Your task to perform on an android device: Search for a custom made wallet on Etsy Image 0: 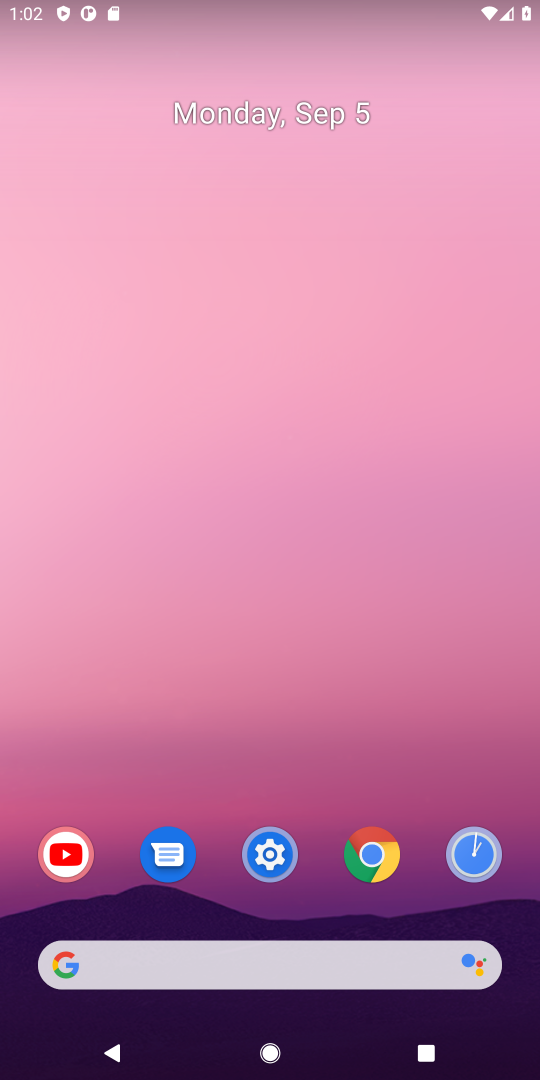
Step 0: click (293, 969)
Your task to perform on an android device: Search for a custom made wallet on Etsy Image 1: 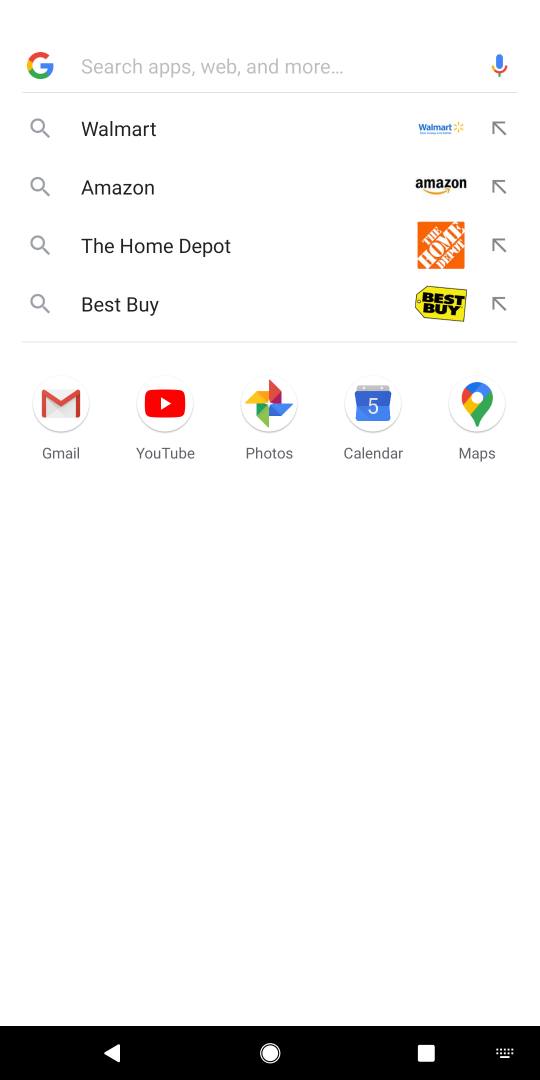
Step 1: type "Etsy"
Your task to perform on an android device: Search for a custom made wallet on Etsy Image 2: 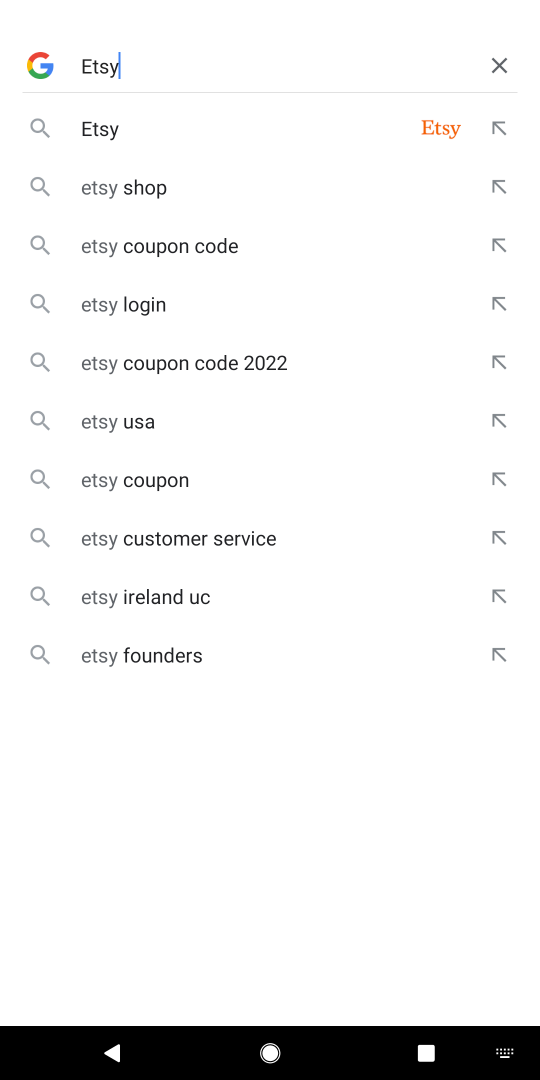
Step 2: click (92, 126)
Your task to perform on an android device: Search for a custom made wallet on Etsy Image 3: 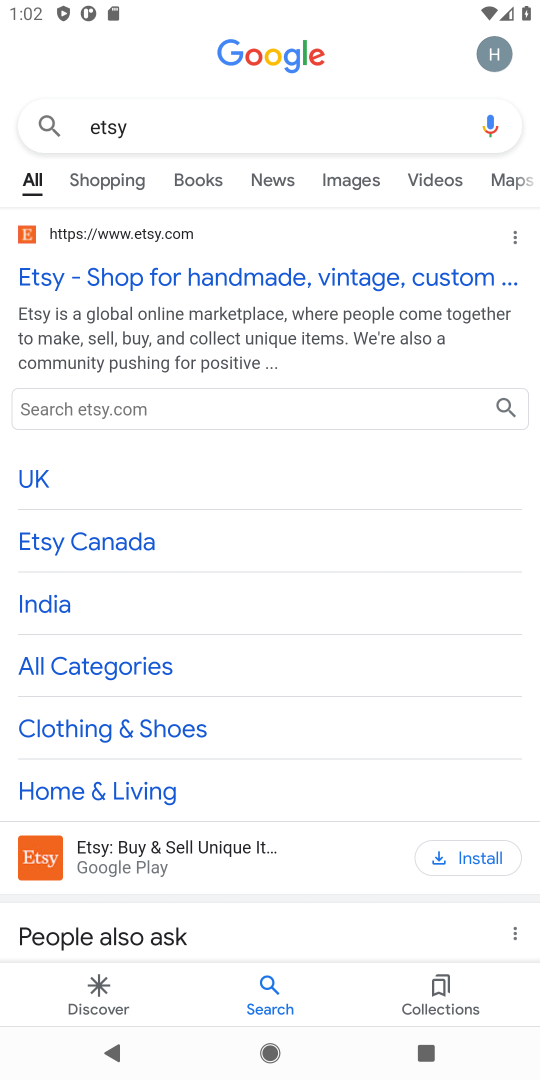
Step 3: click (104, 266)
Your task to perform on an android device: Search for a custom made wallet on Etsy Image 4: 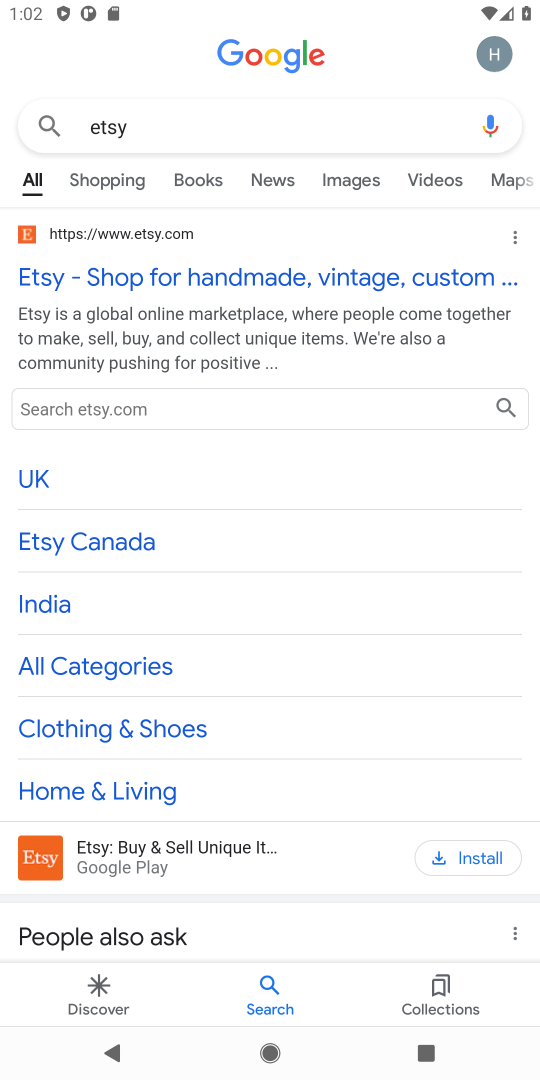
Step 4: click (122, 286)
Your task to perform on an android device: Search for a custom made wallet on Etsy Image 5: 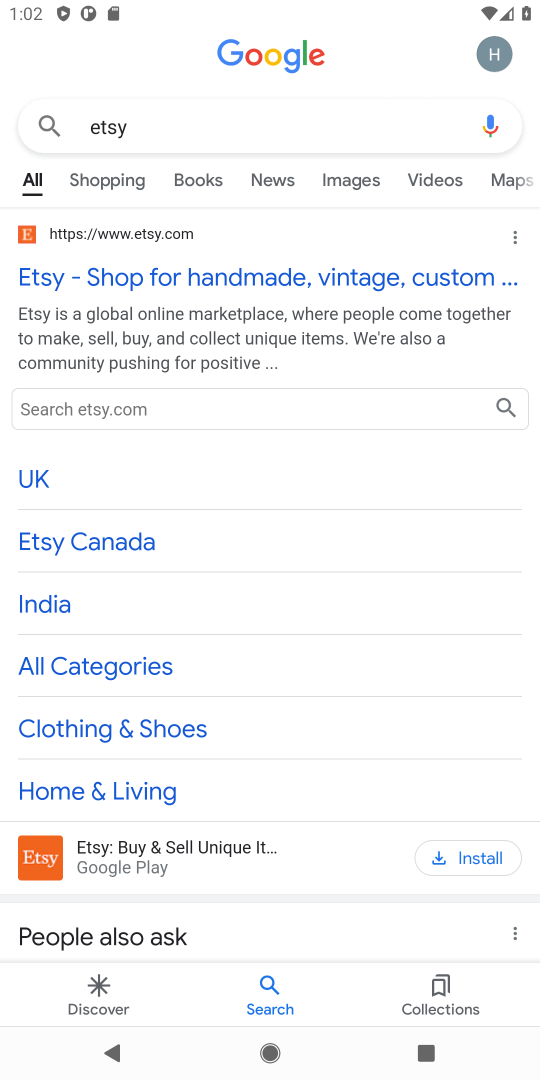
Step 5: click (223, 277)
Your task to perform on an android device: Search for a custom made wallet on Etsy Image 6: 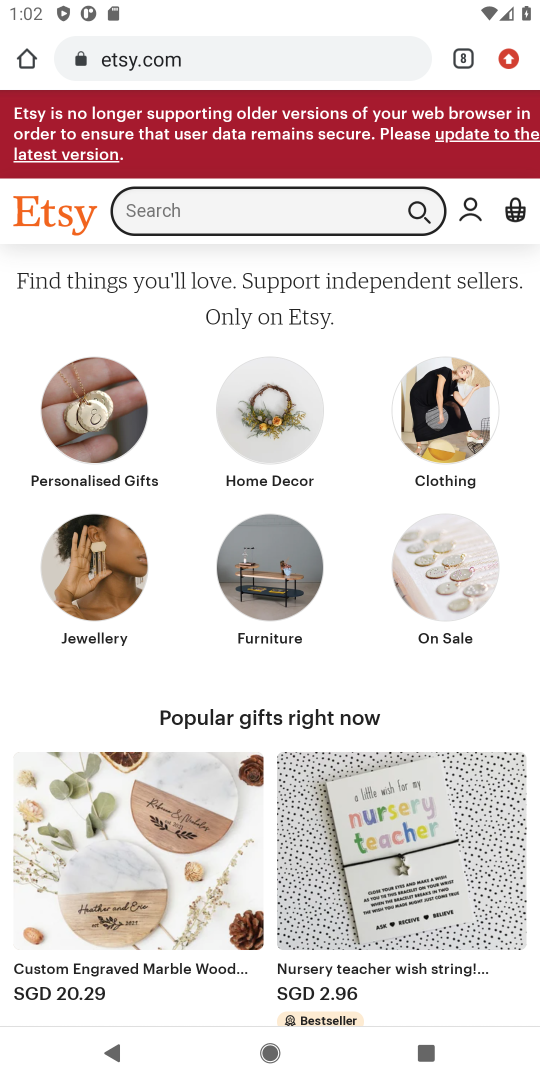
Step 6: click (254, 215)
Your task to perform on an android device: Search for a custom made wallet on Etsy Image 7: 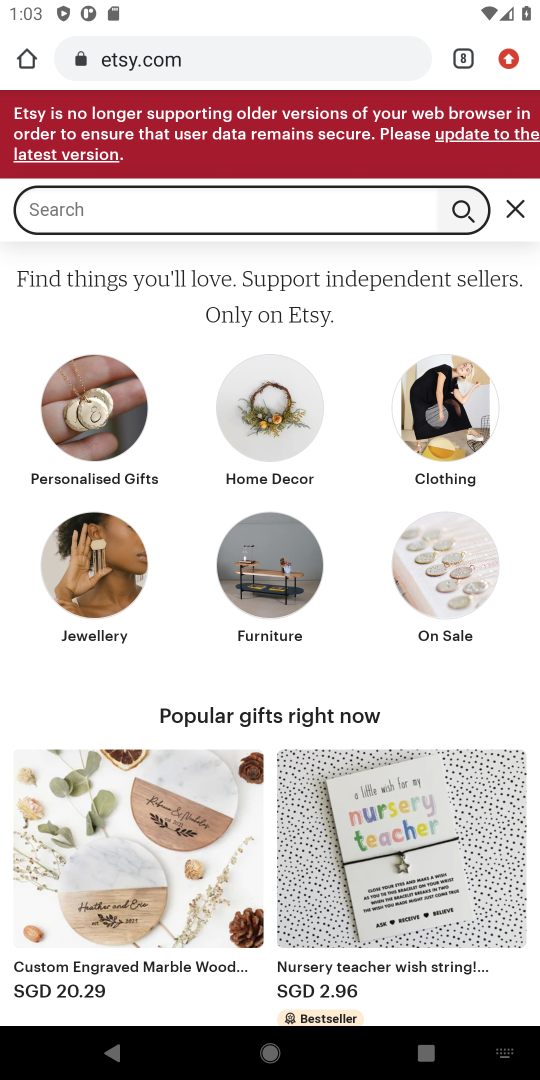
Step 7: type "custom made wallet"
Your task to perform on an android device: Search for a custom made wallet on Etsy Image 8: 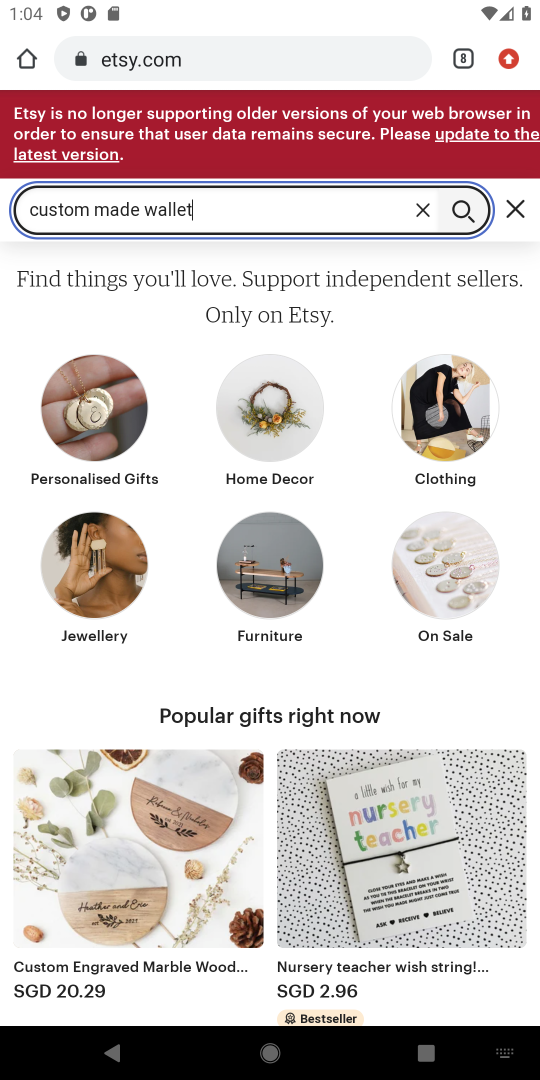
Step 8: type ""
Your task to perform on an android device: Search for a custom made wallet on Etsy Image 9: 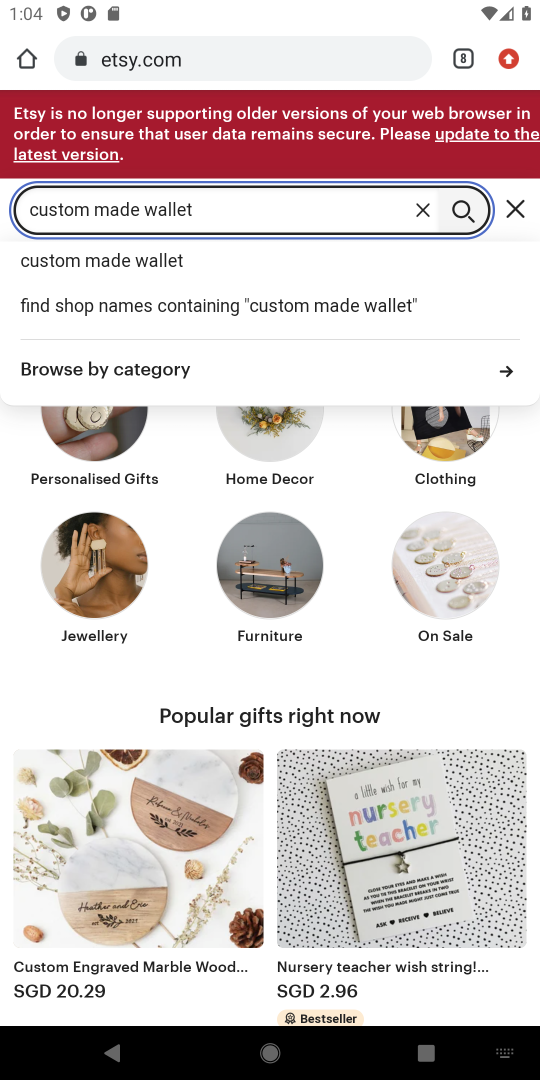
Step 9: click (461, 213)
Your task to perform on an android device: Search for a custom made wallet on Etsy Image 10: 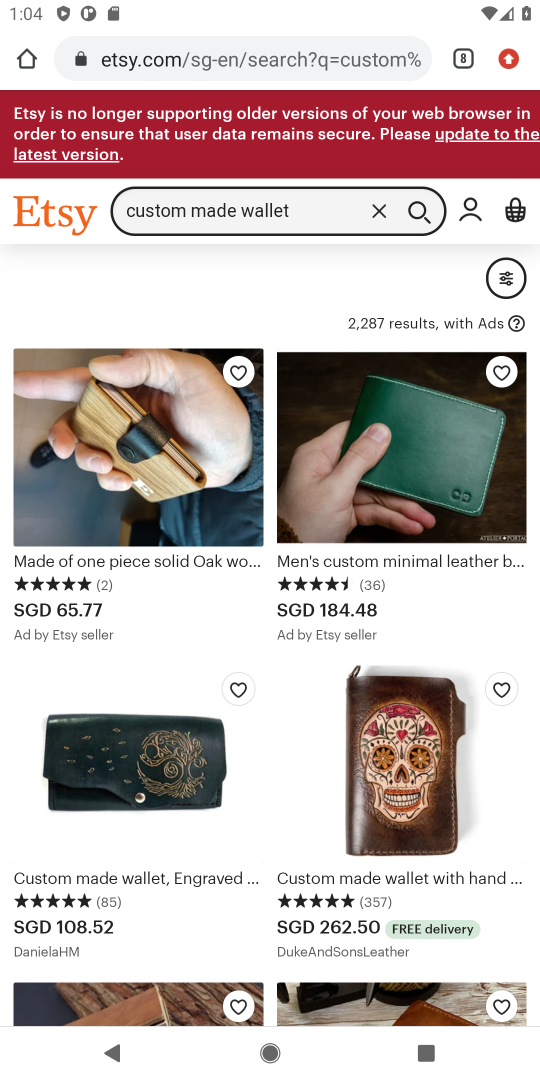
Step 10: task complete